Your task to perform on an android device: uninstall "Reddit" Image 0: 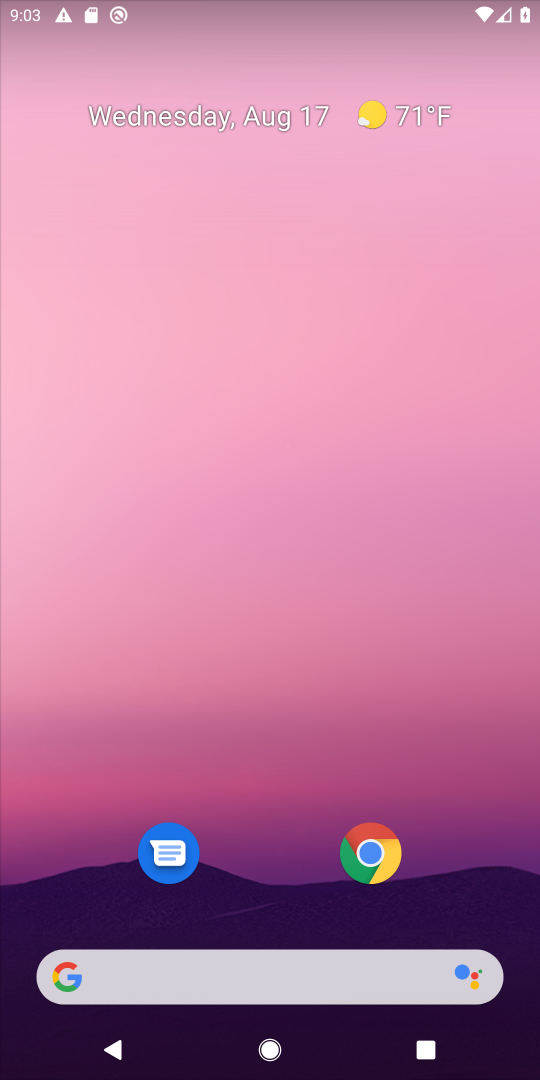
Step 0: drag from (266, 786) to (273, 118)
Your task to perform on an android device: uninstall "Reddit" Image 1: 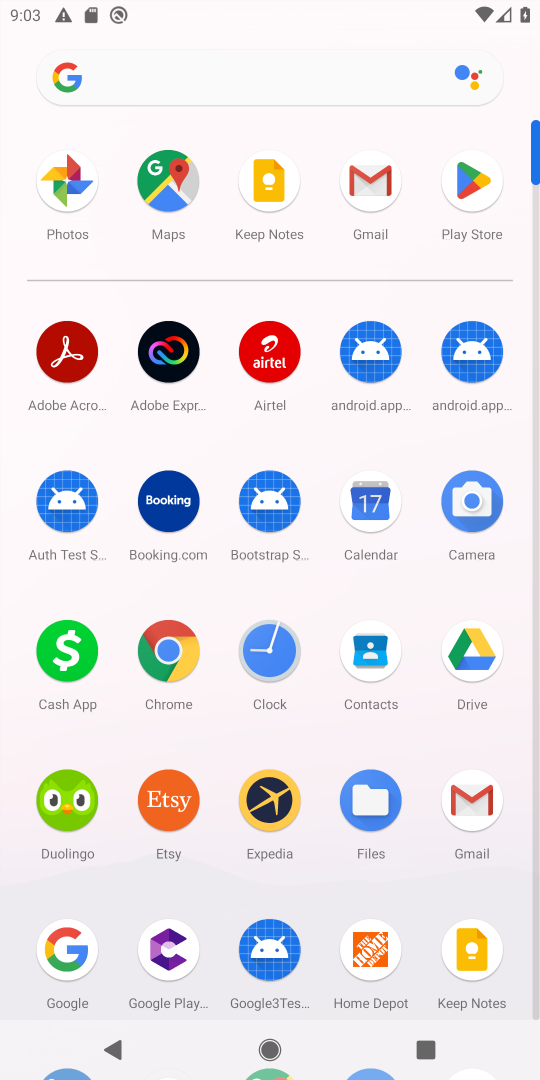
Step 1: click (475, 203)
Your task to perform on an android device: uninstall "Reddit" Image 2: 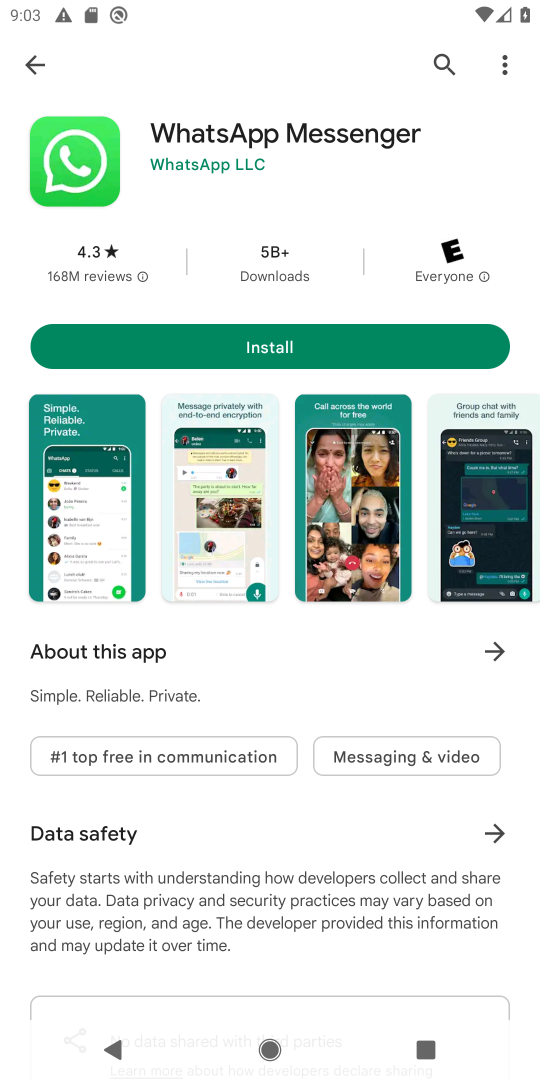
Step 2: click (443, 58)
Your task to perform on an android device: uninstall "Reddit" Image 3: 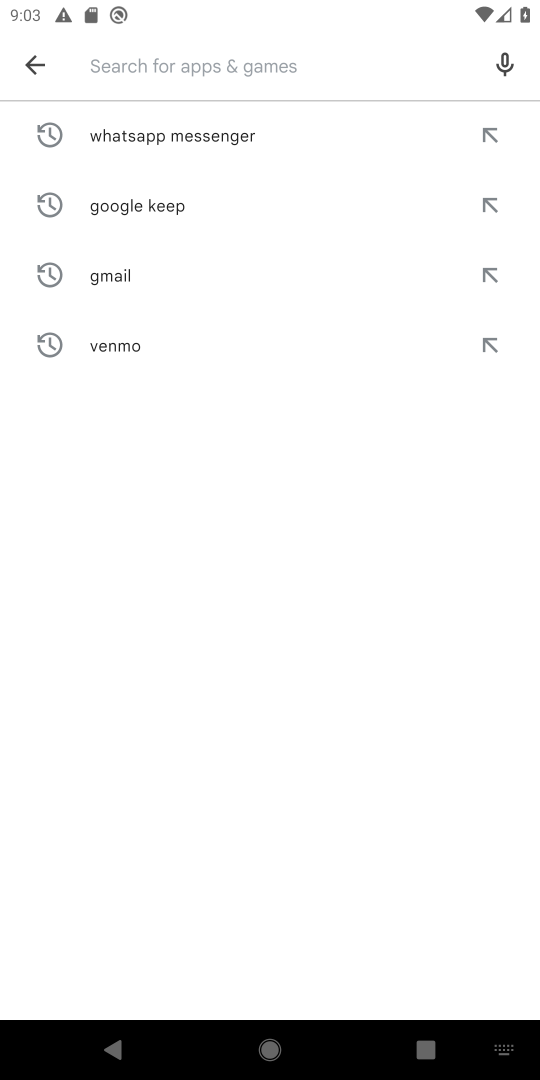
Step 3: type "Reddit"
Your task to perform on an android device: uninstall "Reddit" Image 4: 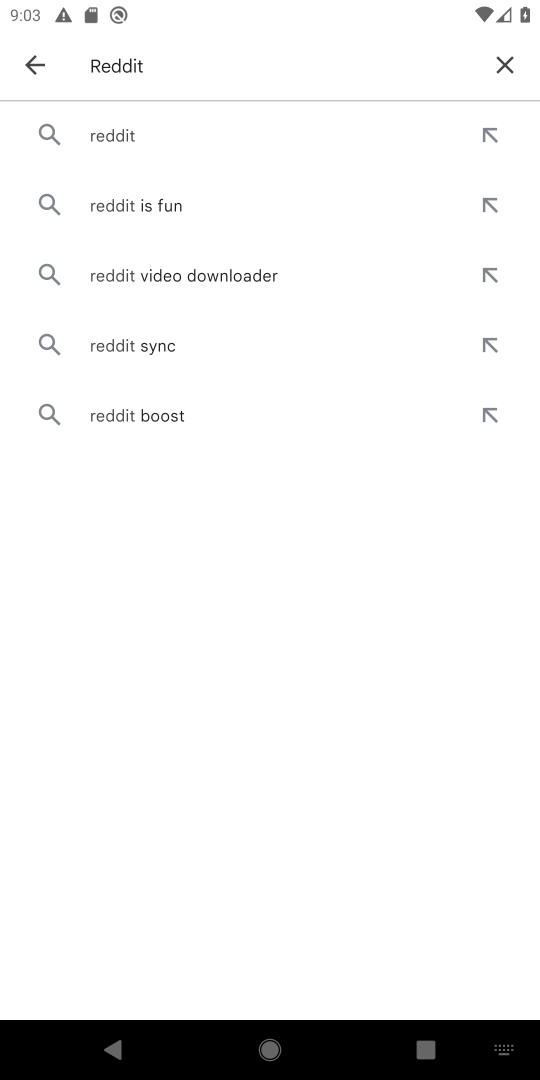
Step 4: click (124, 123)
Your task to perform on an android device: uninstall "Reddit" Image 5: 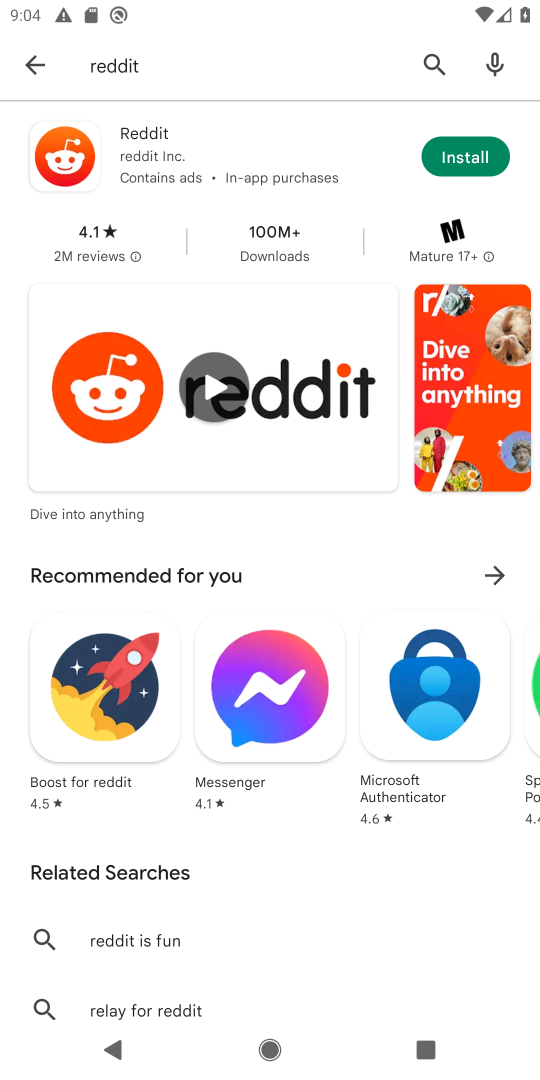
Step 5: task complete